Your task to perform on an android device: turn vacation reply on in the gmail app Image 0: 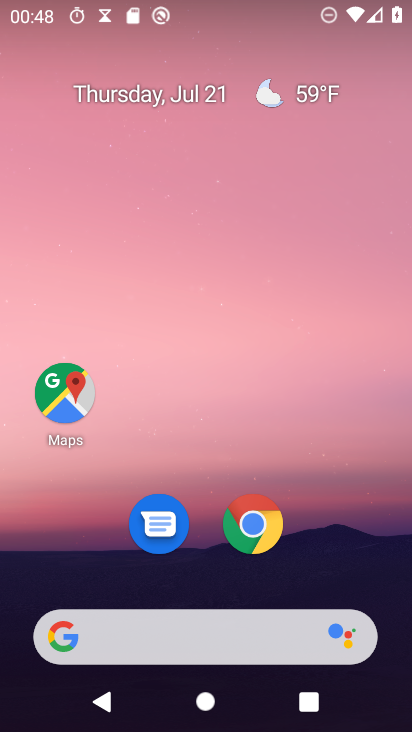
Step 0: drag from (177, 607) to (179, 188)
Your task to perform on an android device: turn vacation reply on in the gmail app Image 1: 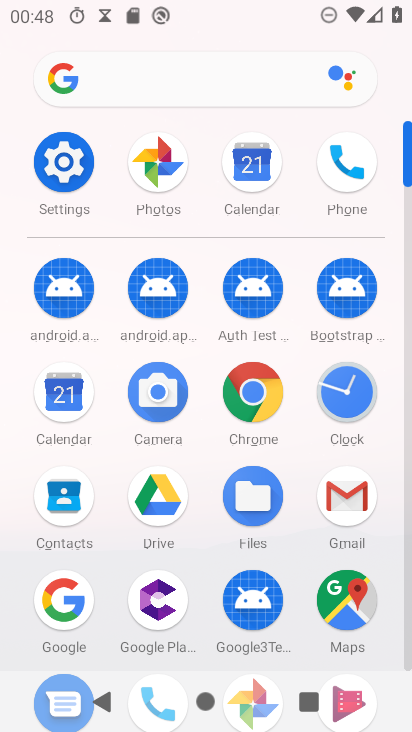
Step 1: click (345, 506)
Your task to perform on an android device: turn vacation reply on in the gmail app Image 2: 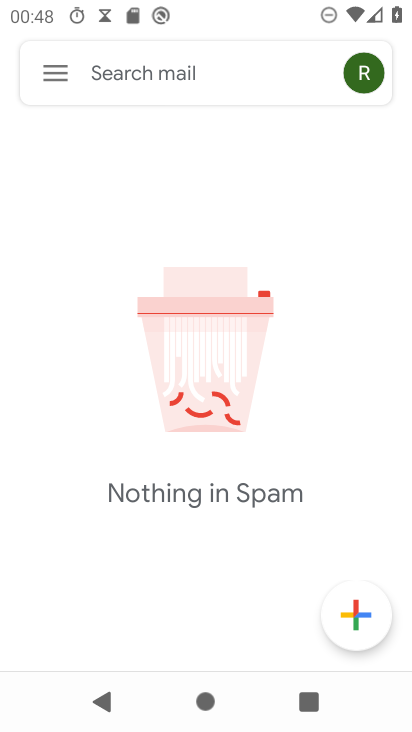
Step 2: click (63, 66)
Your task to perform on an android device: turn vacation reply on in the gmail app Image 3: 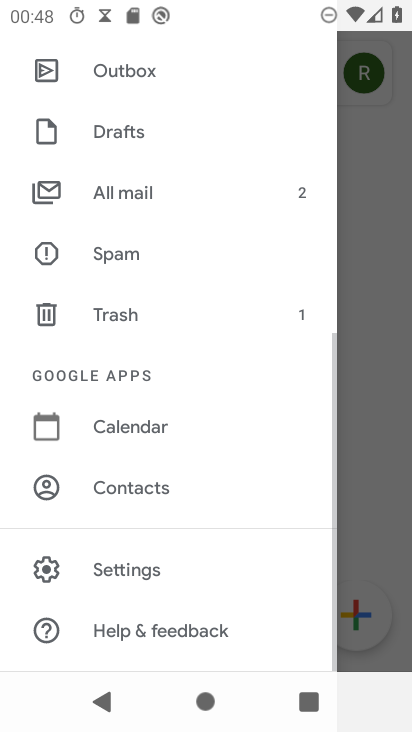
Step 3: click (154, 559)
Your task to perform on an android device: turn vacation reply on in the gmail app Image 4: 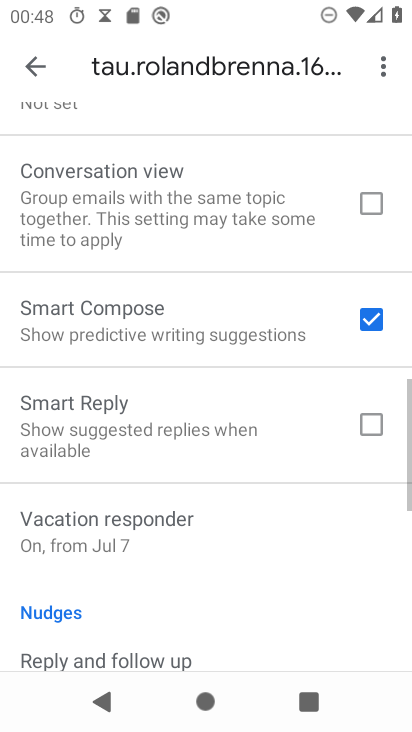
Step 4: click (131, 529)
Your task to perform on an android device: turn vacation reply on in the gmail app Image 5: 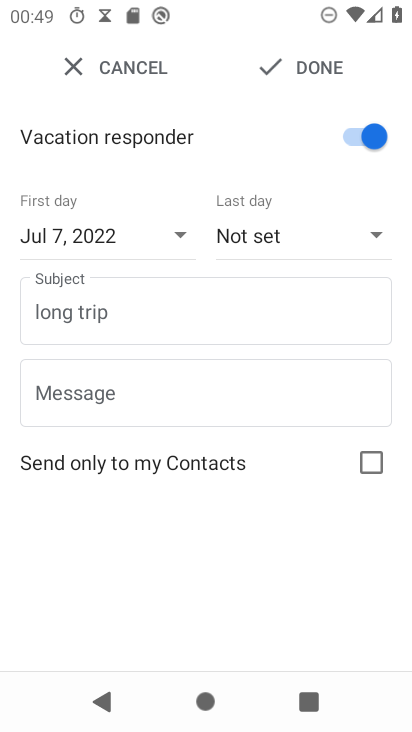
Step 5: task complete